Your task to perform on an android device: turn vacation reply on in the gmail app Image 0: 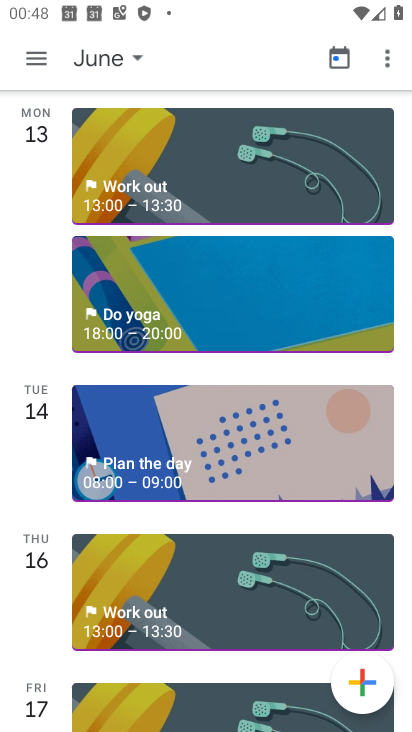
Step 0: press home button
Your task to perform on an android device: turn vacation reply on in the gmail app Image 1: 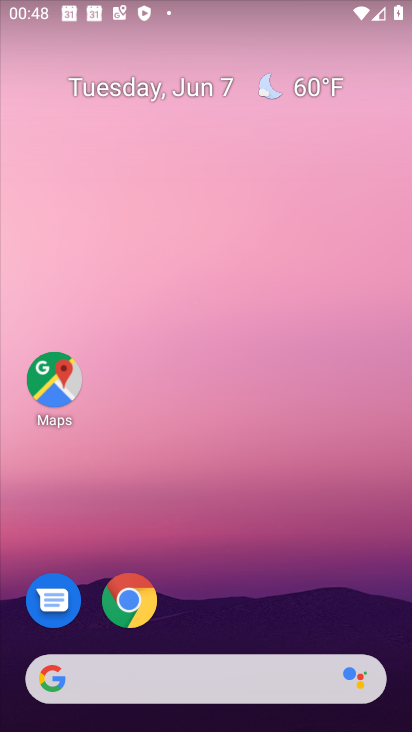
Step 1: drag from (228, 643) to (230, 171)
Your task to perform on an android device: turn vacation reply on in the gmail app Image 2: 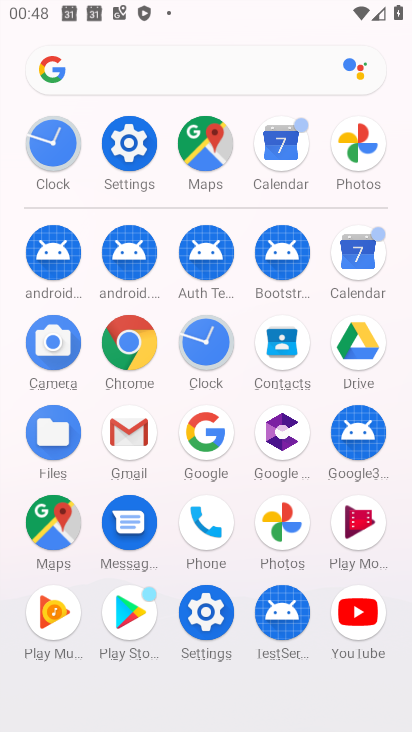
Step 2: click (128, 432)
Your task to perform on an android device: turn vacation reply on in the gmail app Image 3: 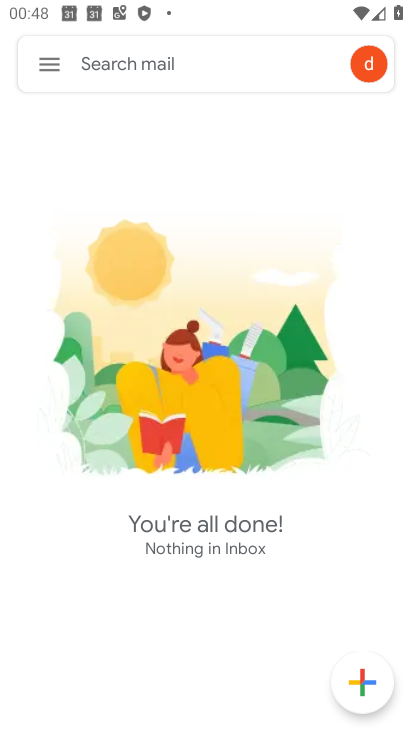
Step 3: click (46, 59)
Your task to perform on an android device: turn vacation reply on in the gmail app Image 4: 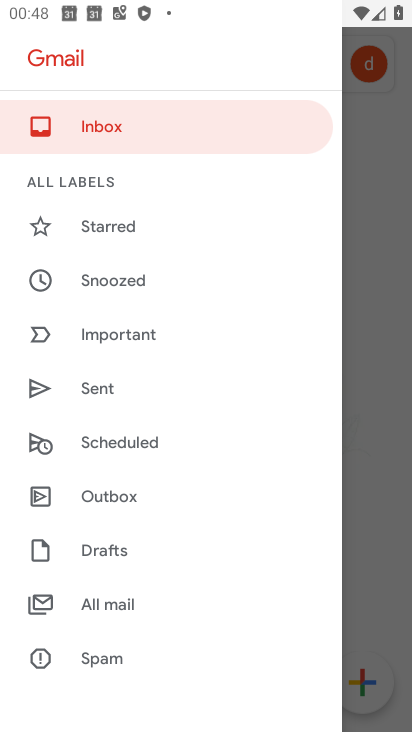
Step 4: drag from (101, 664) to (104, 334)
Your task to perform on an android device: turn vacation reply on in the gmail app Image 5: 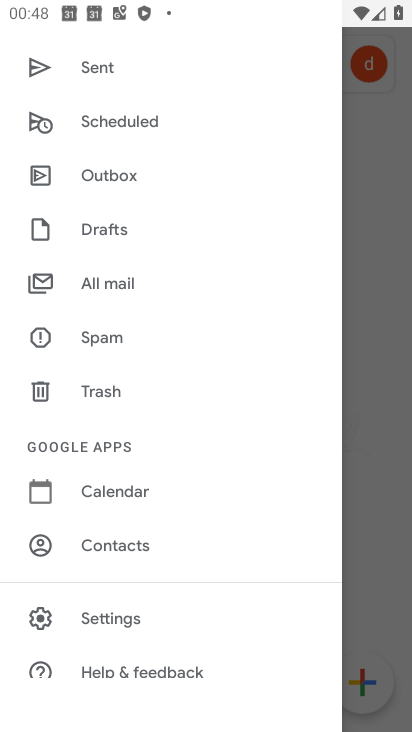
Step 5: click (115, 613)
Your task to perform on an android device: turn vacation reply on in the gmail app Image 6: 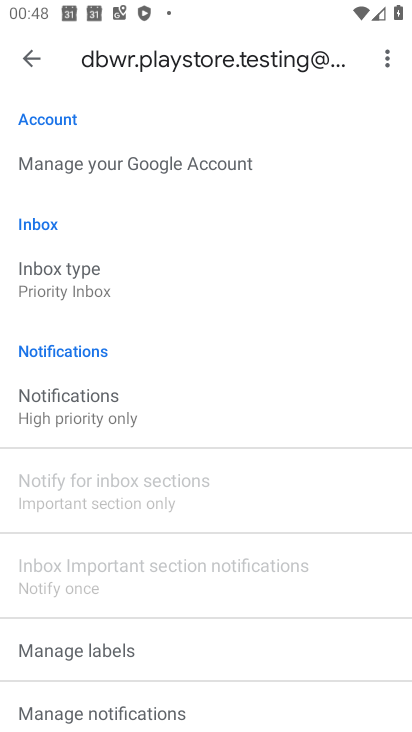
Step 6: drag from (175, 668) to (157, 265)
Your task to perform on an android device: turn vacation reply on in the gmail app Image 7: 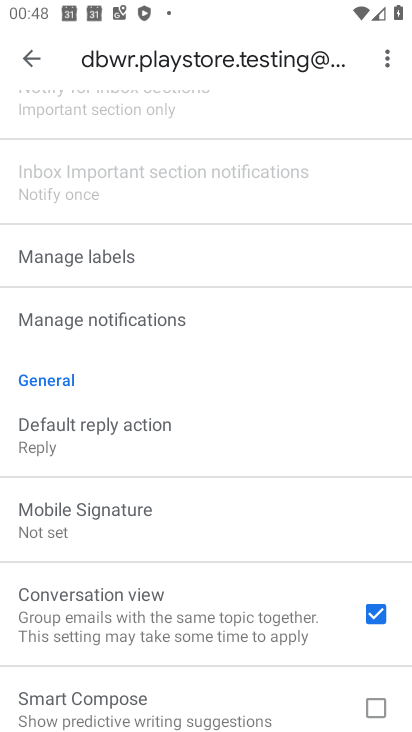
Step 7: drag from (213, 655) to (204, 374)
Your task to perform on an android device: turn vacation reply on in the gmail app Image 8: 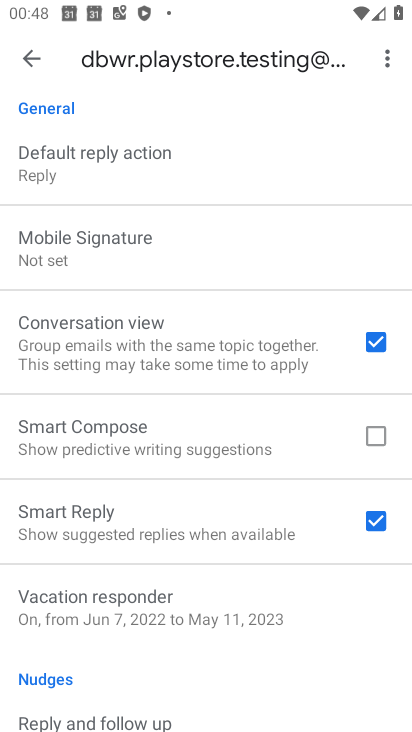
Step 8: click (138, 592)
Your task to perform on an android device: turn vacation reply on in the gmail app Image 9: 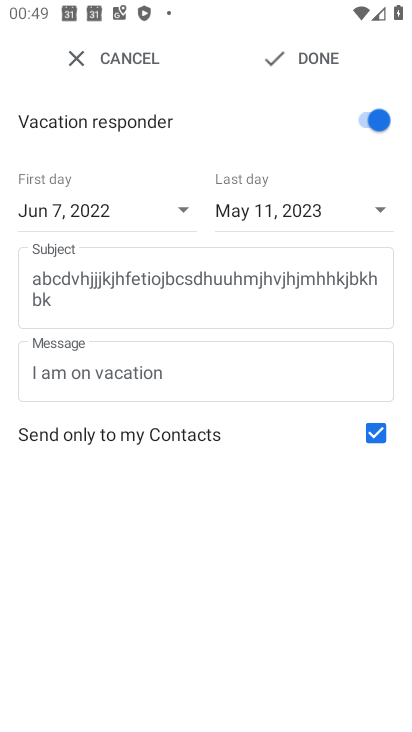
Step 9: task complete